Your task to perform on an android device: all mails in gmail Image 0: 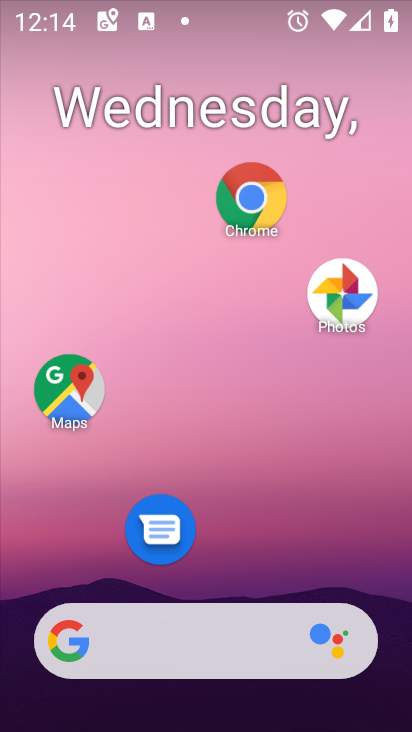
Step 0: drag from (205, 635) to (192, 151)
Your task to perform on an android device: all mails in gmail Image 1: 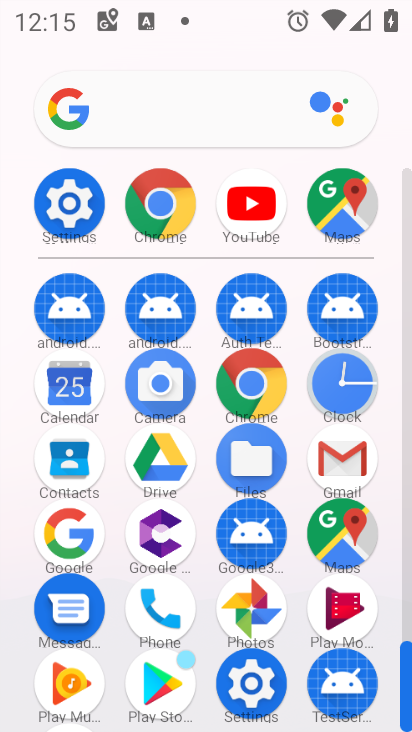
Step 1: click (354, 467)
Your task to perform on an android device: all mails in gmail Image 2: 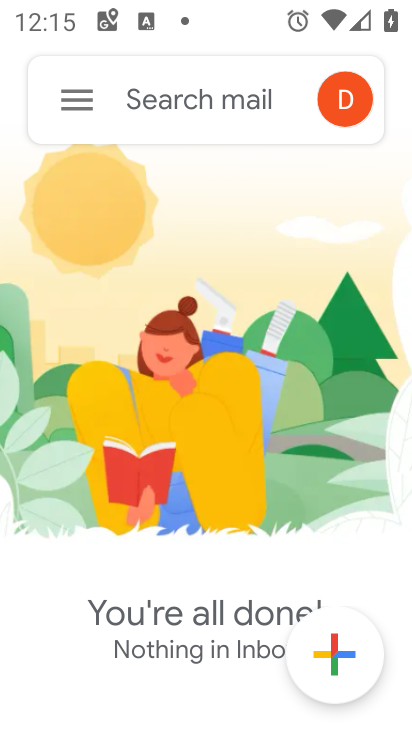
Step 2: click (70, 111)
Your task to perform on an android device: all mails in gmail Image 3: 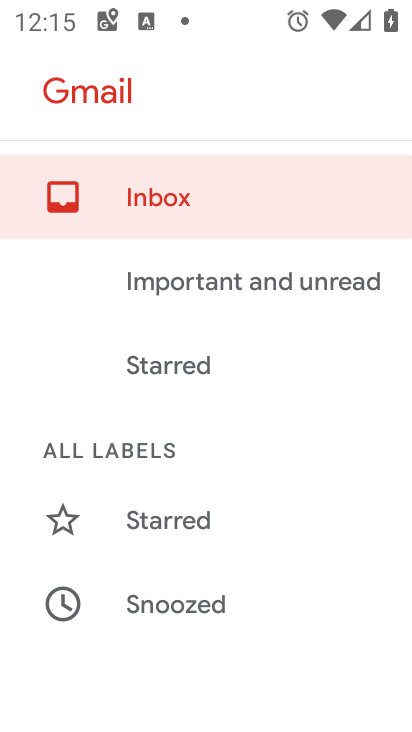
Step 3: drag from (176, 513) to (163, 226)
Your task to perform on an android device: all mails in gmail Image 4: 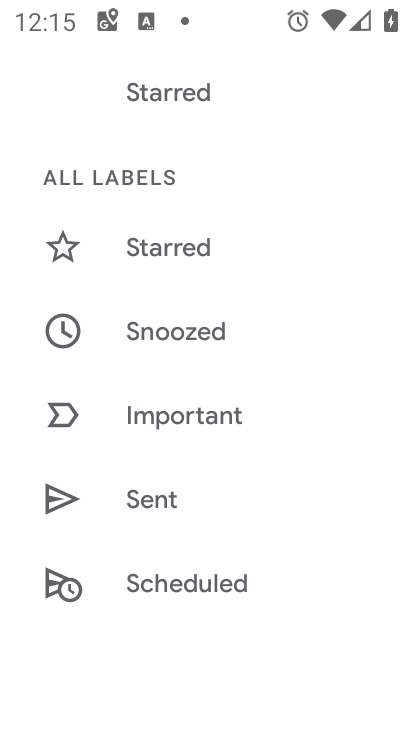
Step 4: drag from (125, 441) to (151, 132)
Your task to perform on an android device: all mails in gmail Image 5: 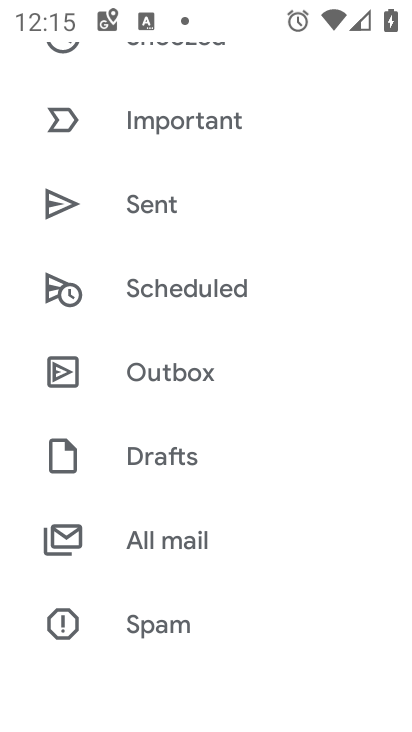
Step 5: click (162, 536)
Your task to perform on an android device: all mails in gmail Image 6: 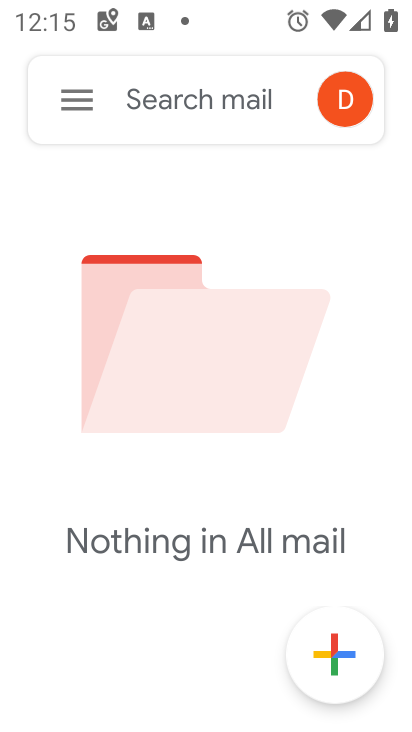
Step 6: task complete